Your task to perform on an android device: Search for the best rated mechanical keyboard on Amazon. Image 0: 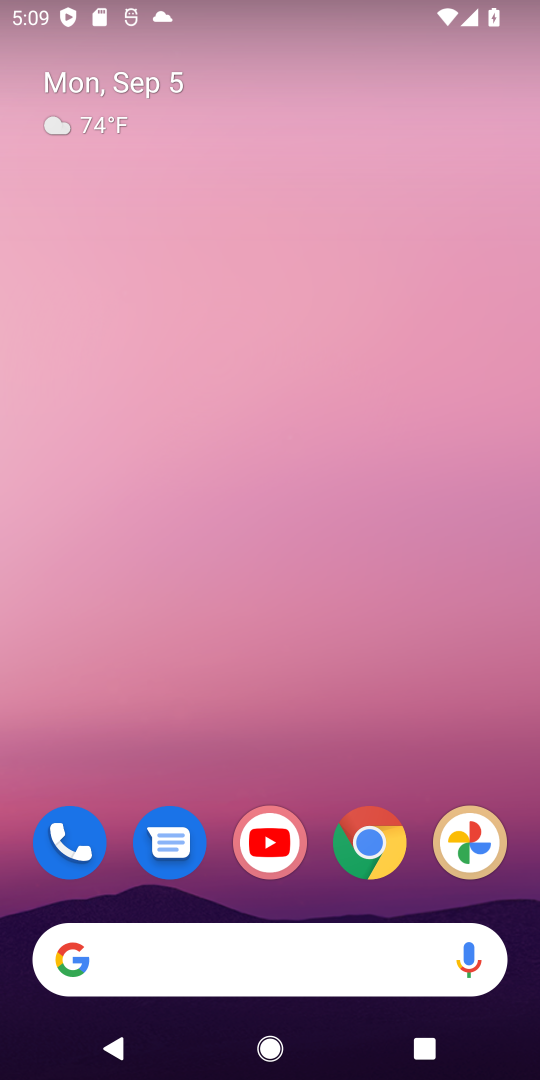
Step 0: click (368, 848)
Your task to perform on an android device: Search for the best rated mechanical keyboard on Amazon. Image 1: 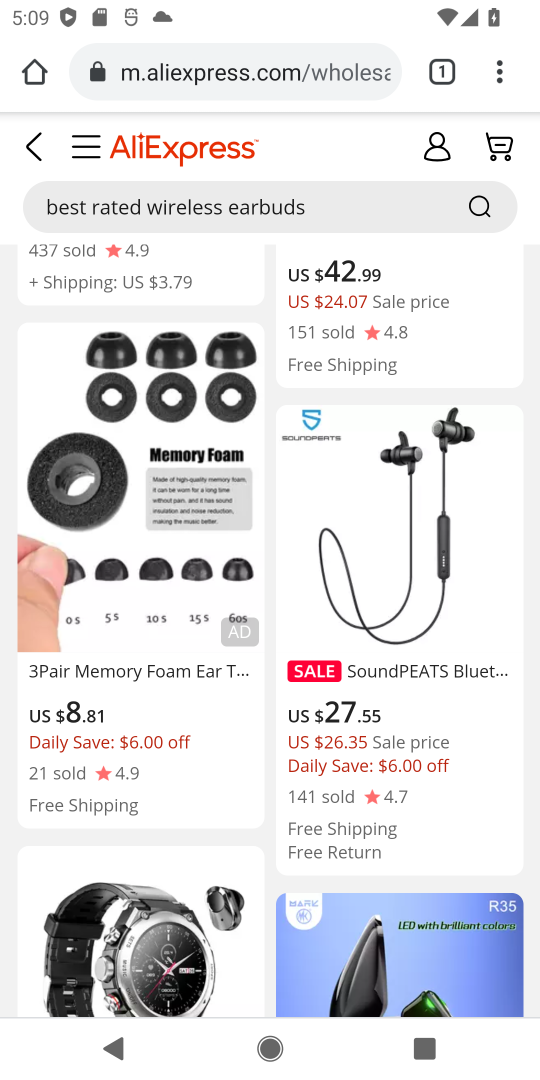
Step 1: click (256, 73)
Your task to perform on an android device: Search for the best rated mechanical keyboard on Amazon. Image 2: 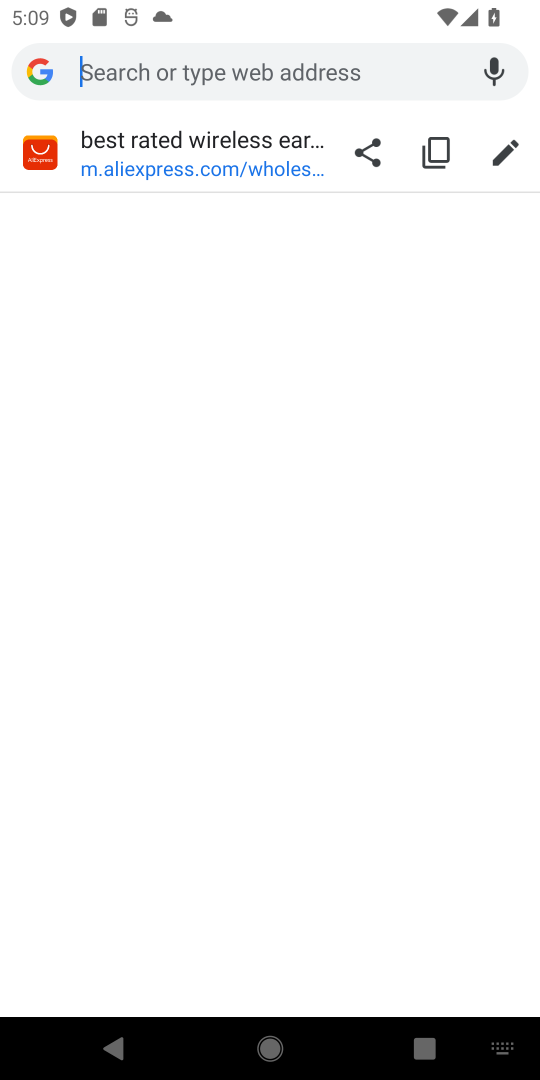
Step 2: type "Amazon"
Your task to perform on an android device: Search for the best rated mechanical keyboard on Amazon. Image 3: 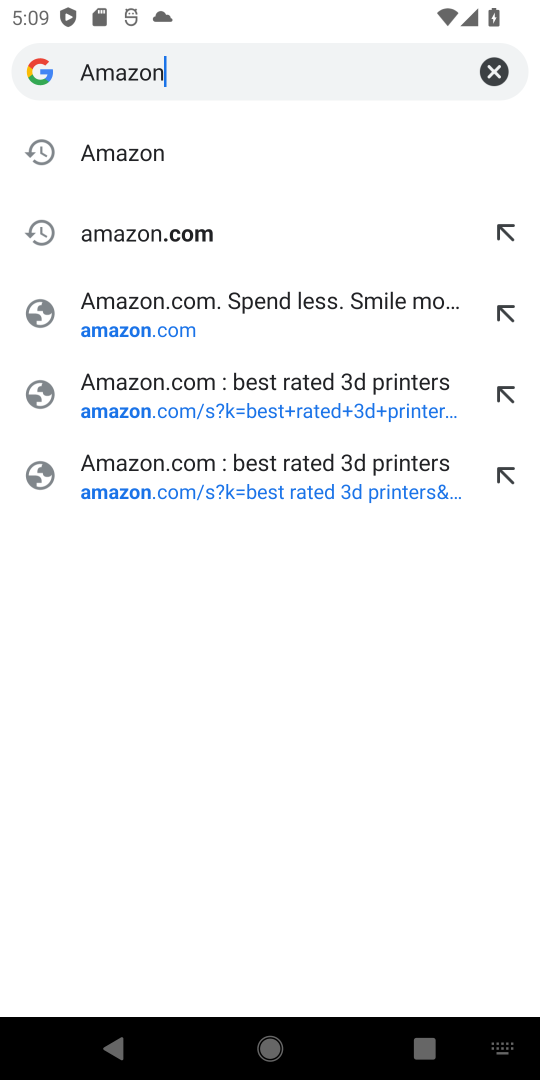
Step 3: click (137, 155)
Your task to perform on an android device: Search for the best rated mechanical keyboard on Amazon. Image 4: 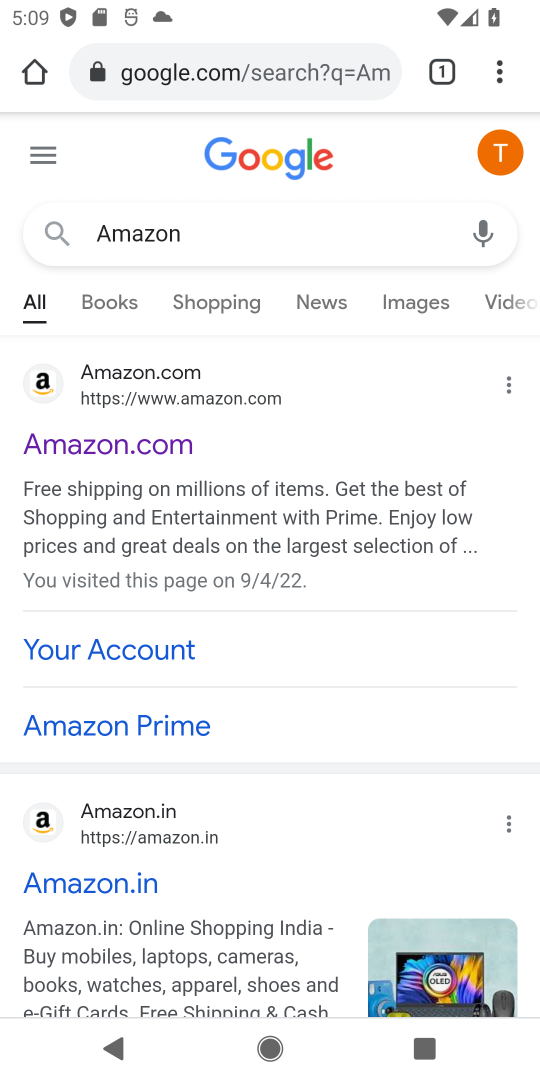
Step 4: click (112, 878)
Your task to perform on an android device: Search for the best rated mechanical keyboard on Amazon. Image 5: 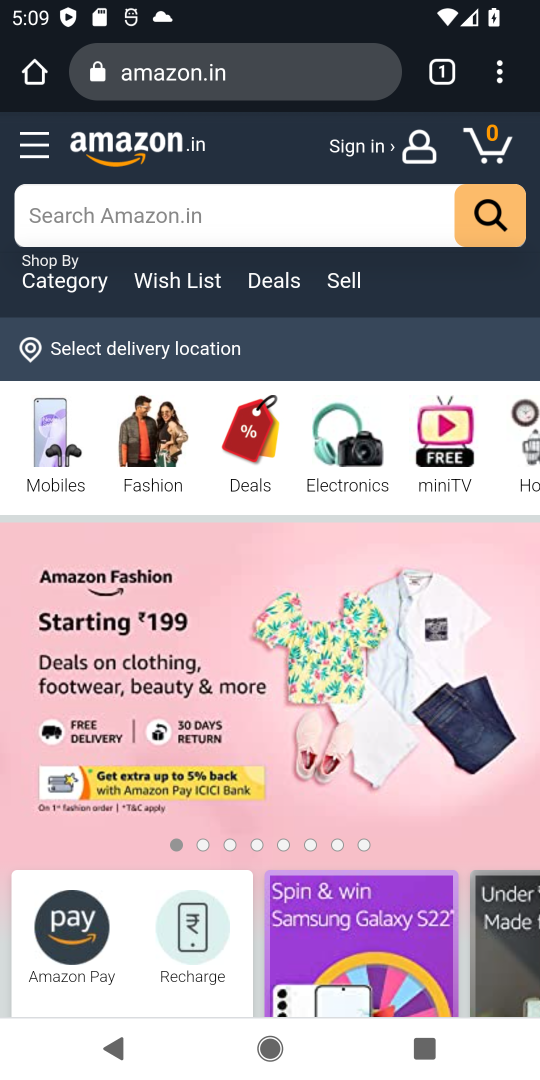
Step 5: click (281, 210)
Your task to perform on an android device: Search for the best rated mechanical keyboard on Amazon. Image 6: 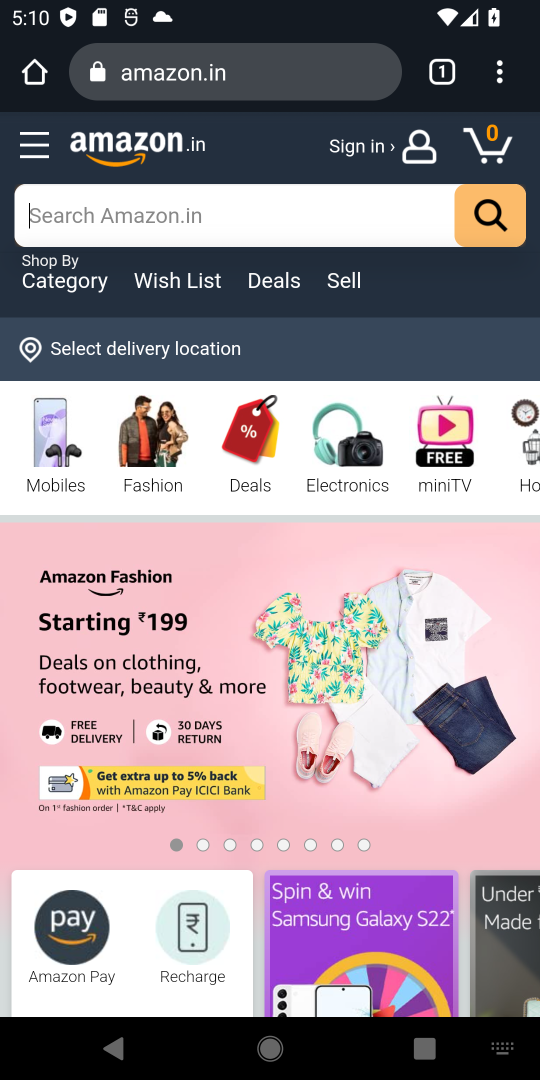
Step 6: type "best rated mechanical keyboard"
Your task to perform on an android device: Search for the best rated mechanical keyboard on Amazon. Image 7: 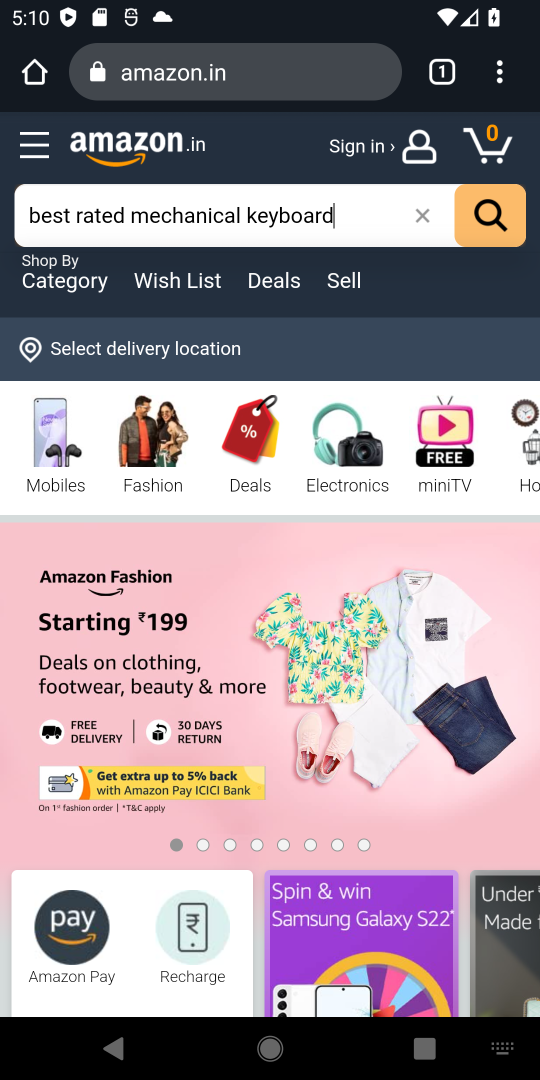
Step 7: click (492, 222)
Your task to perform on an android device: Search for the best rated mechanical keyboard on Amazon. Image 8: 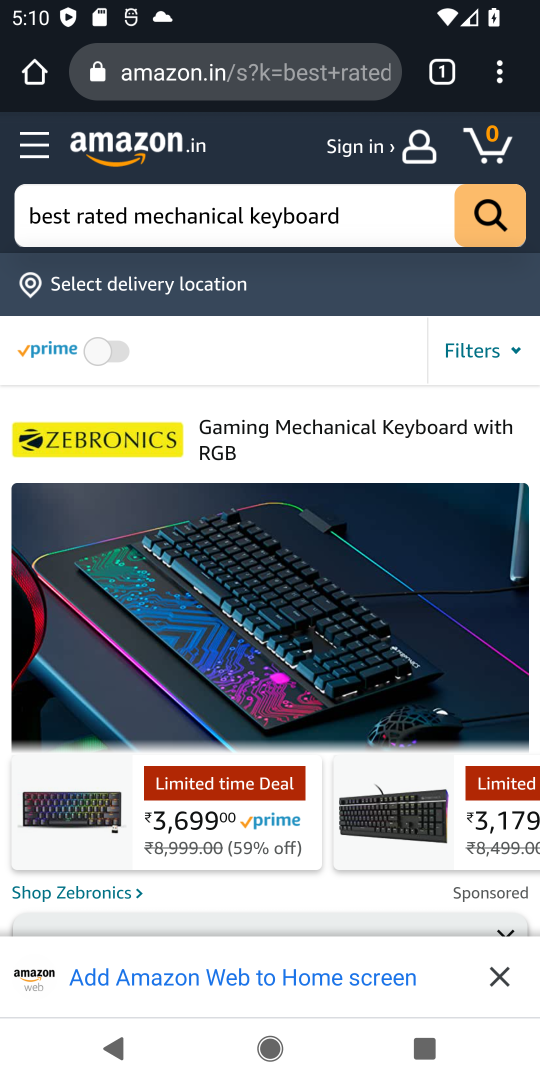
Step 8: task complete